Your task to perform on an android device: Show the shopping cart on newegg.com. Search for "apple airpods" on newegg.com, select the first entry, and add it to the cart. Image 0: 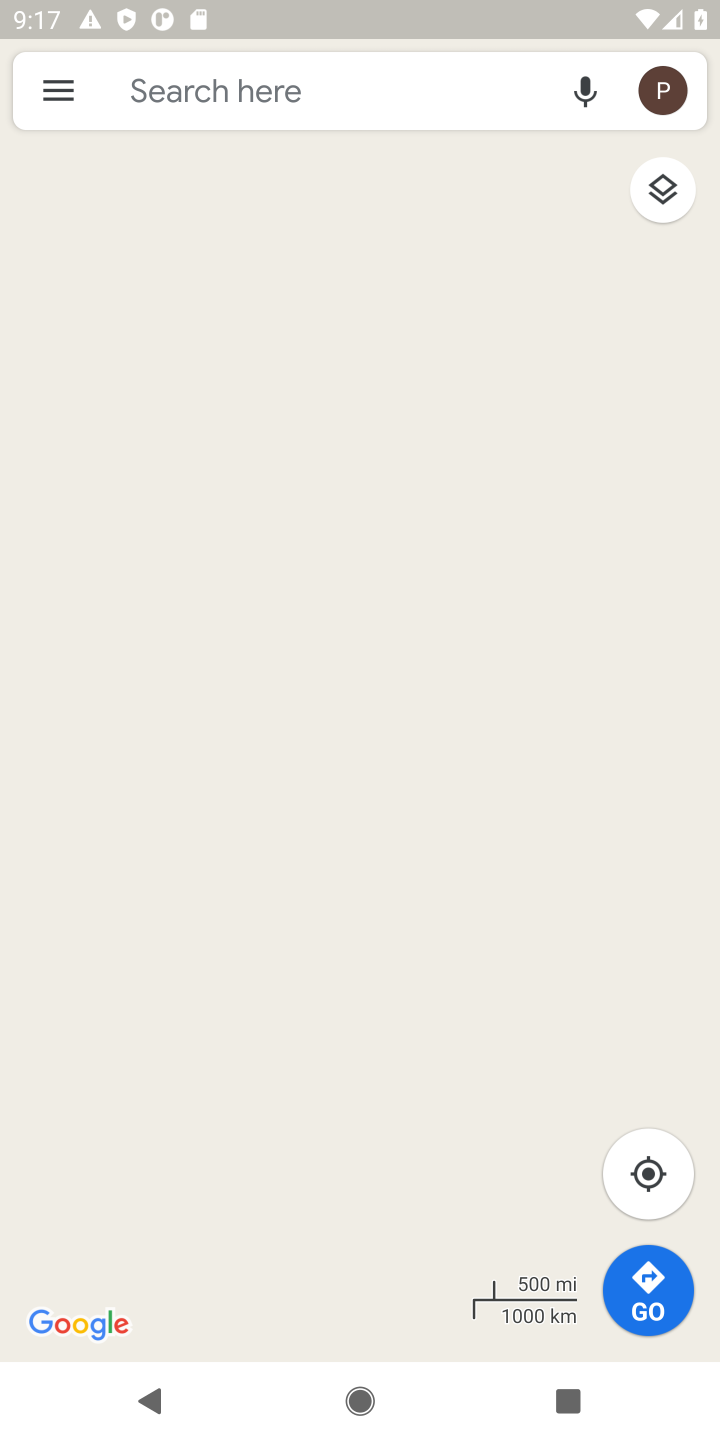
Step 0: press home button
Your task to perform on an android device: Show the shopping cart on newegg.com. Search for "apple airpods" on newegg.com, select the first entry, and add it to the cart. Image 1: 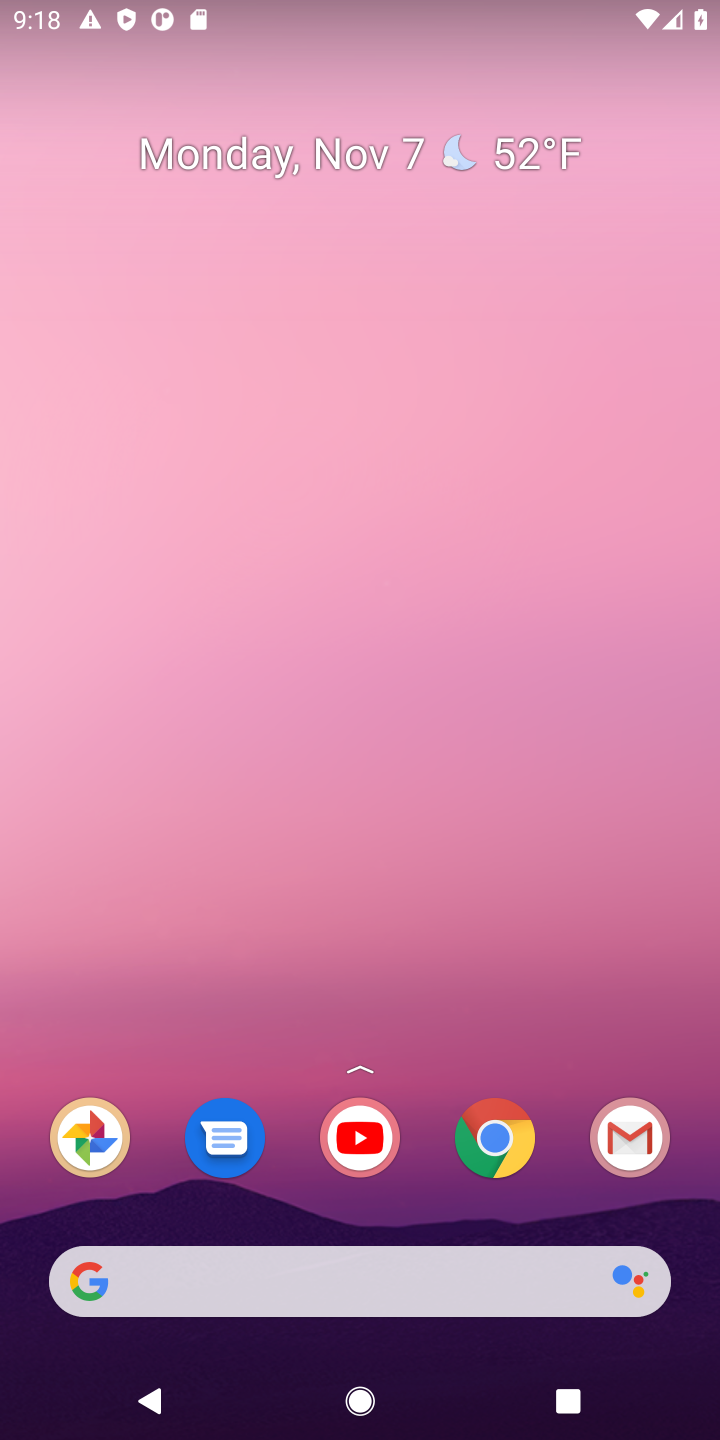
Step 1: drag from (412, 1222) to (457, 126)
Your task to perform on an android device: Show the shopping cart on newegg.com. Search for "apple airpods" on newegg.com, select the first entry, and add it to the cart. Image 2: 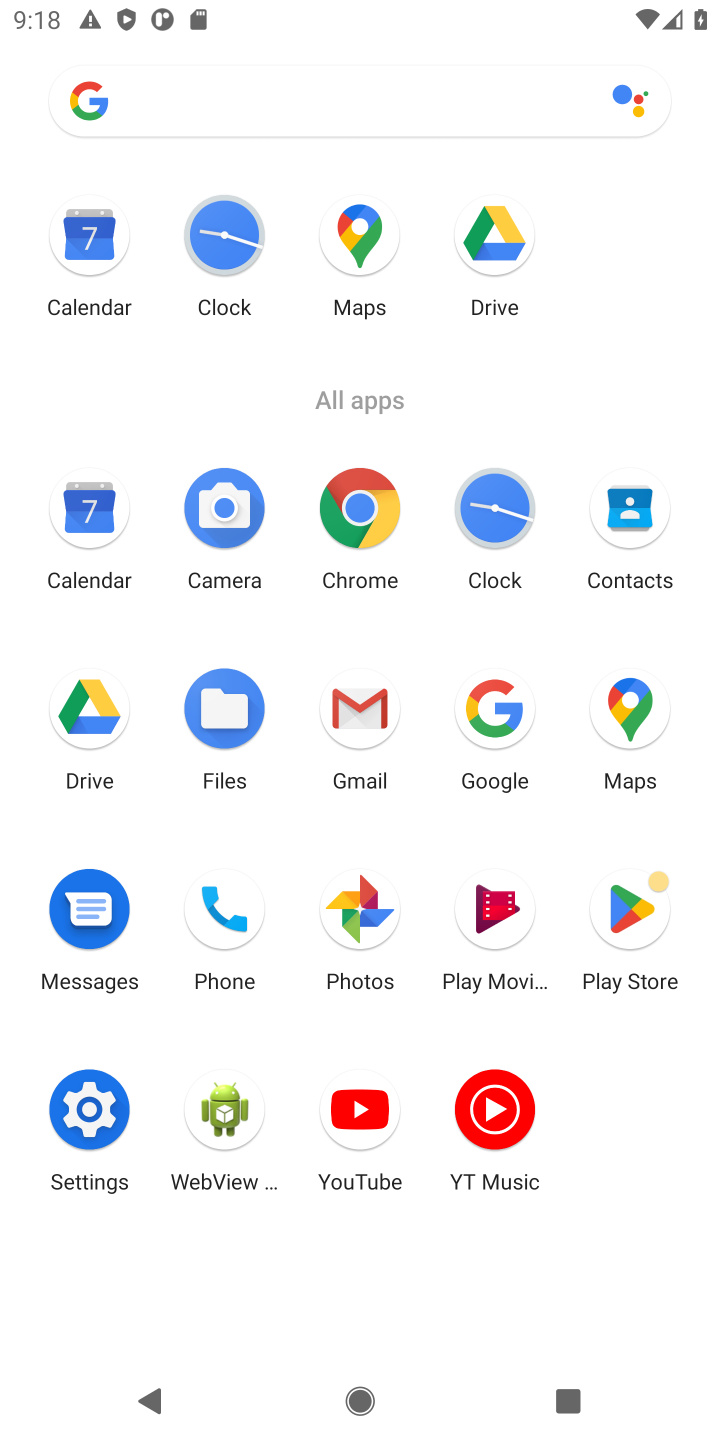
Step 2: click (353, 501)
Your task to perform on an android device: Show the shopping cart on newegg.com. Search for "apple airpods" on newegg.com, select the first entry, and add it to the cart. Image 3: 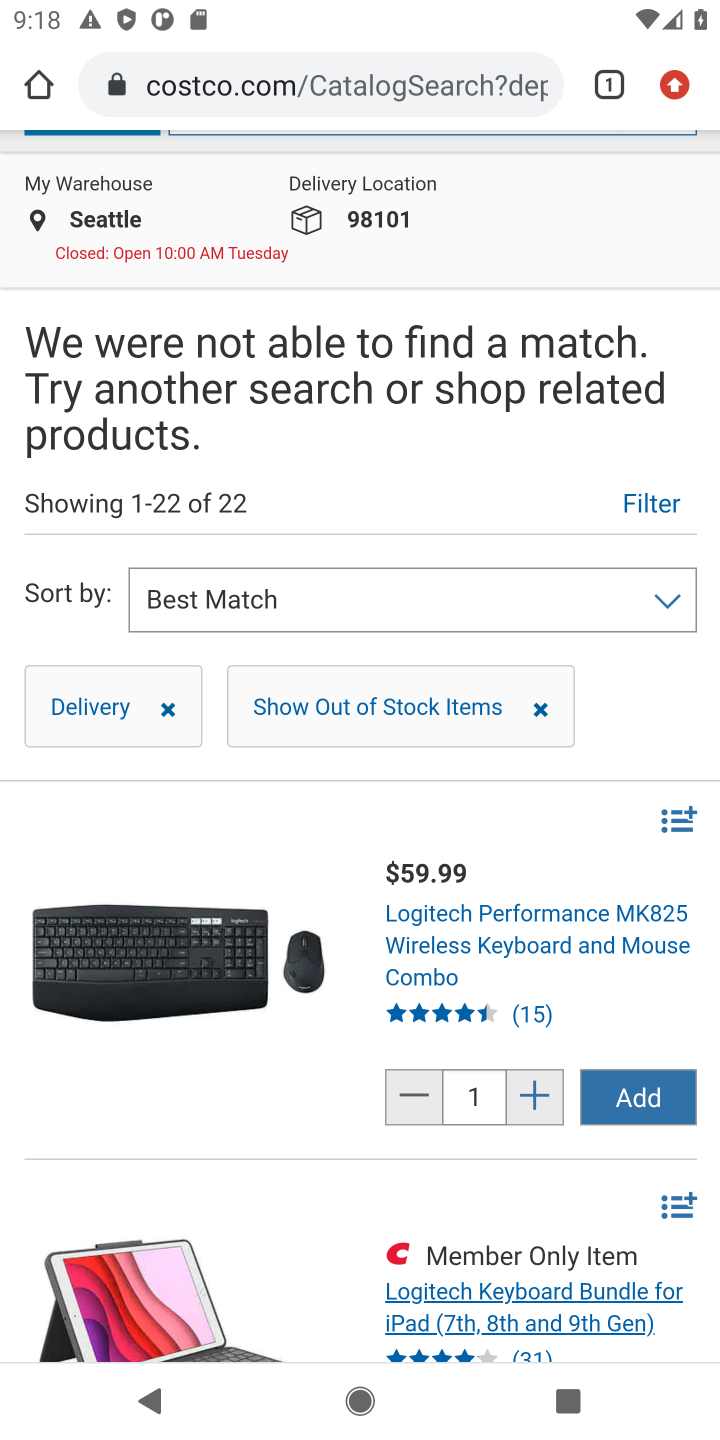
Step 3: click (331, 80)
Your task to perform on an android device: Show the shopping cart on newegg.com. Search for "apple airpods" on newegg.com, select the first entry, and add it to the cart. Image 4: 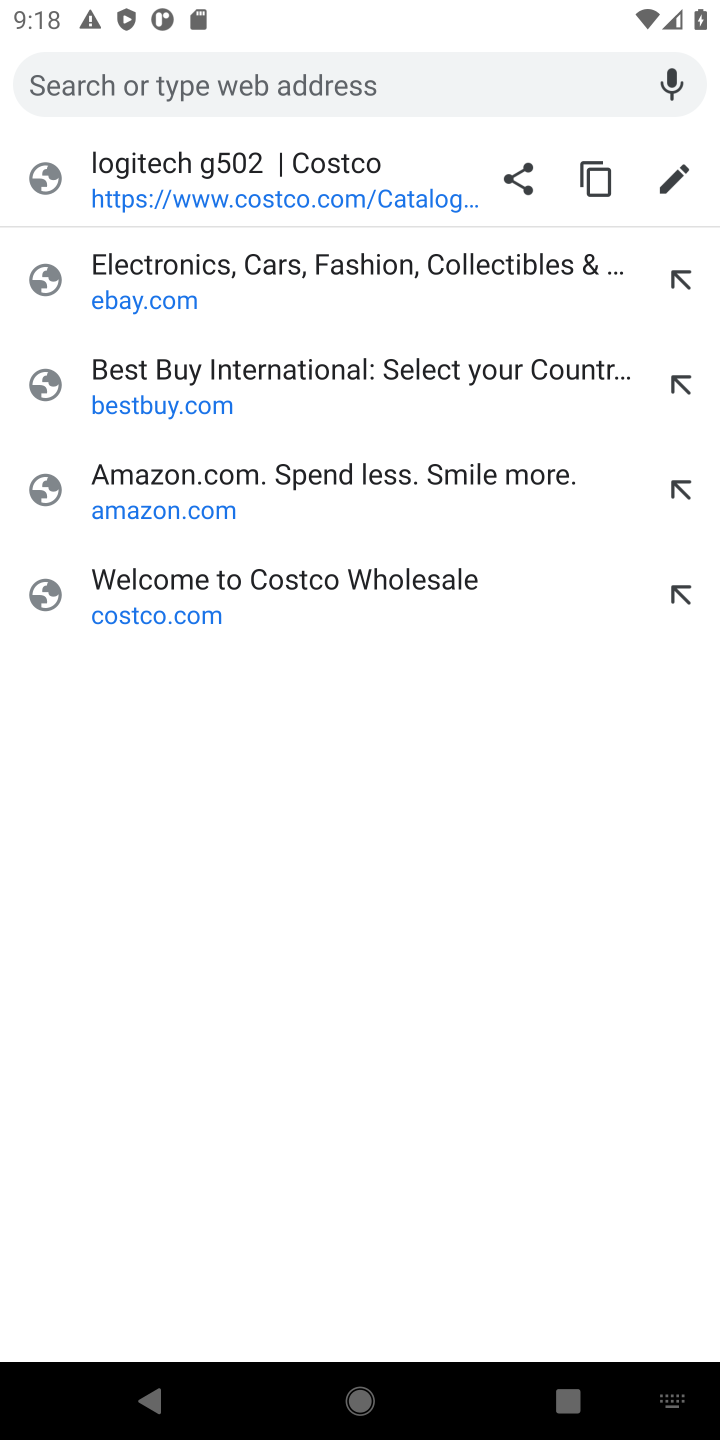
Step 4: type "newegg.com"
Your task to perform on an android device: Show the shopping cart on newegg.com. Search for "apple airpods" on newegg.com, select the first entry, and add it to the cart. Image 5: 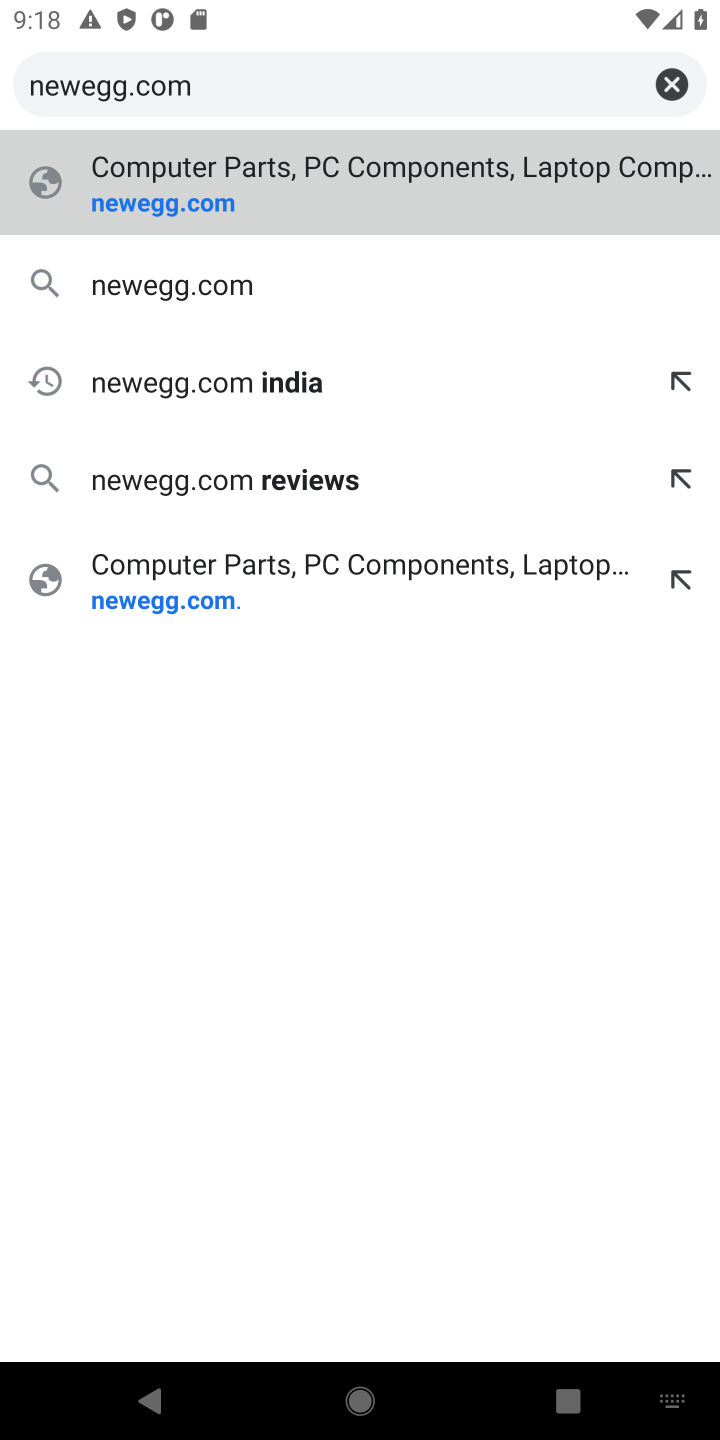
Step 5: press enter
Your task to perform on an android device: Show the shopping cart on newegg.com. Search for "apple airpods" on newegg.com, select the first entry, and add it to the cart. Image 6: 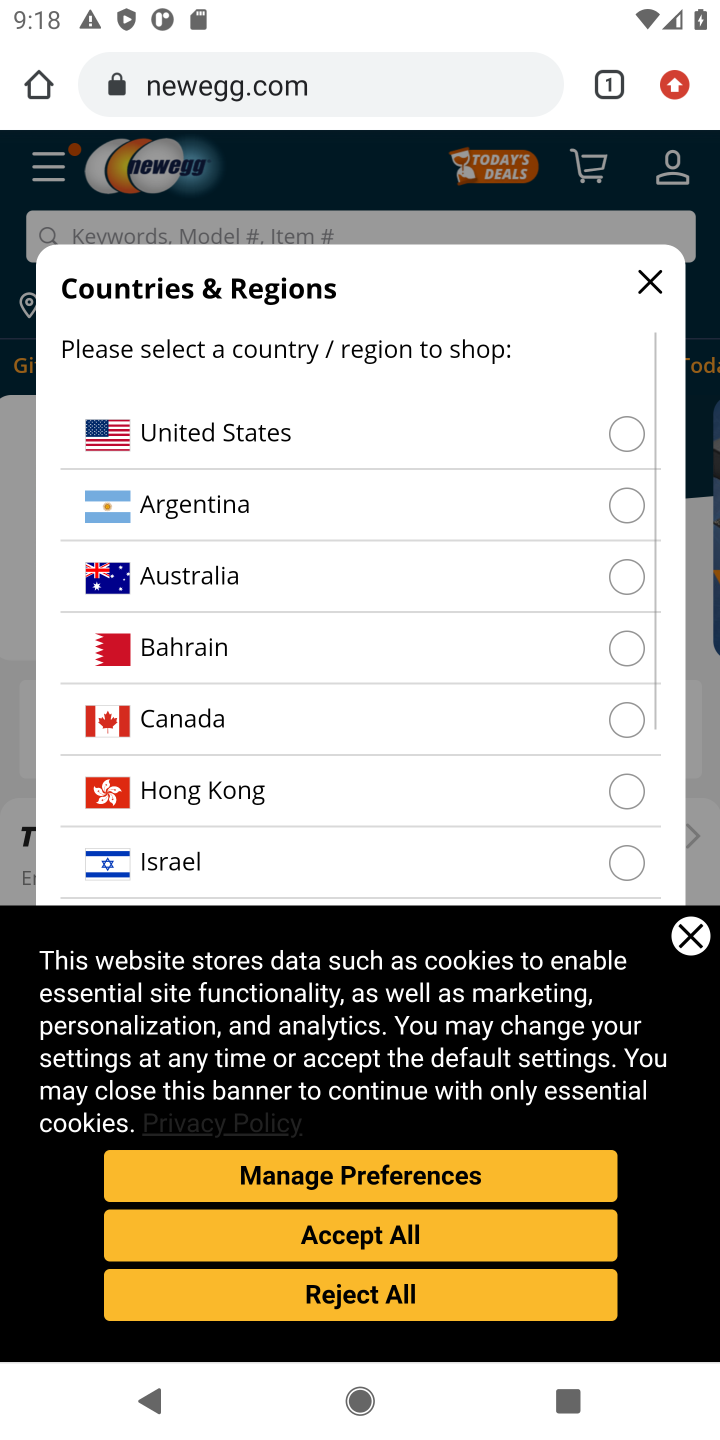
Step 6: click (659, 283)
Your task to perform on an android device: Show the shopping cart on newegg.com. Search for "apple airpods" on newegg.com, select the first entry, and add it to the cart. Image 7: 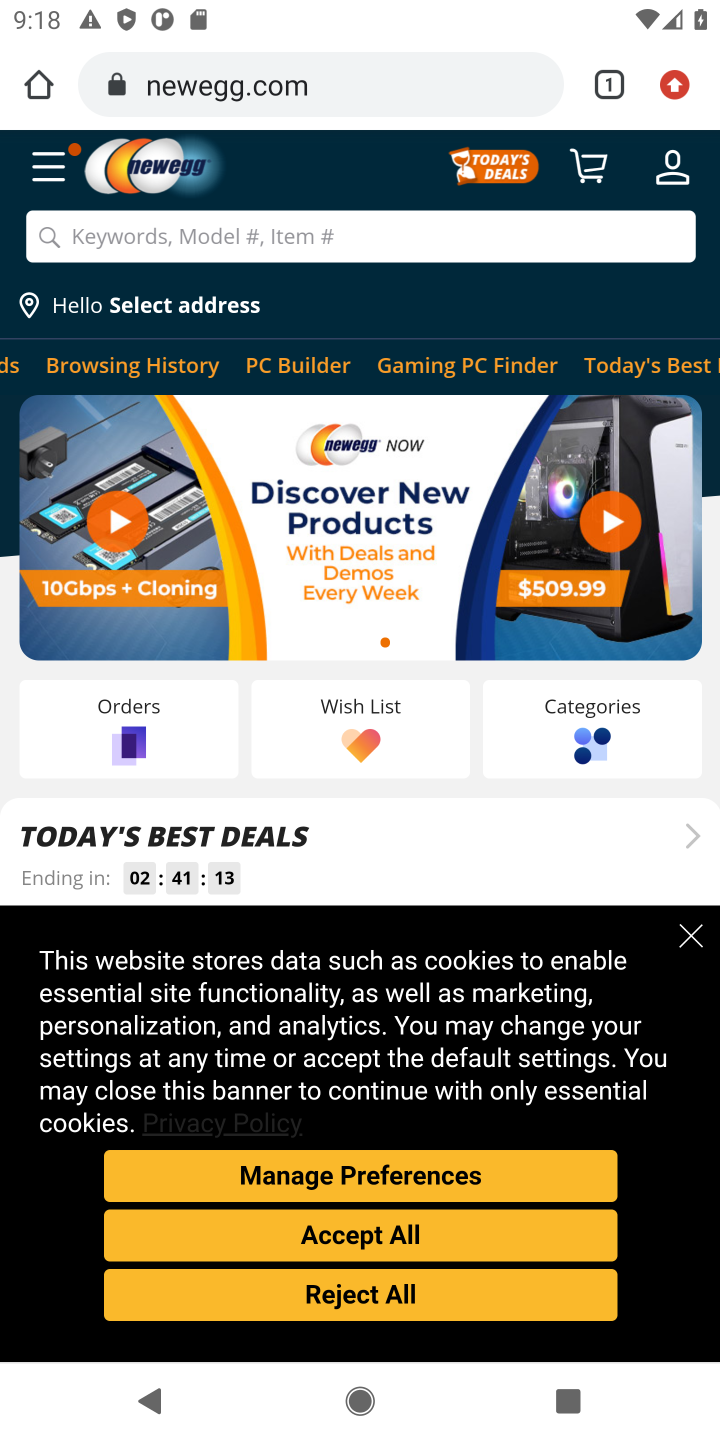
Step 7: click (599, 178)
Your task to perform on an android device: Show the shopping cart on newegg.com. Search for "apple airpods" on newegg.com, select the first entry, and add it to the cart. Image 8: 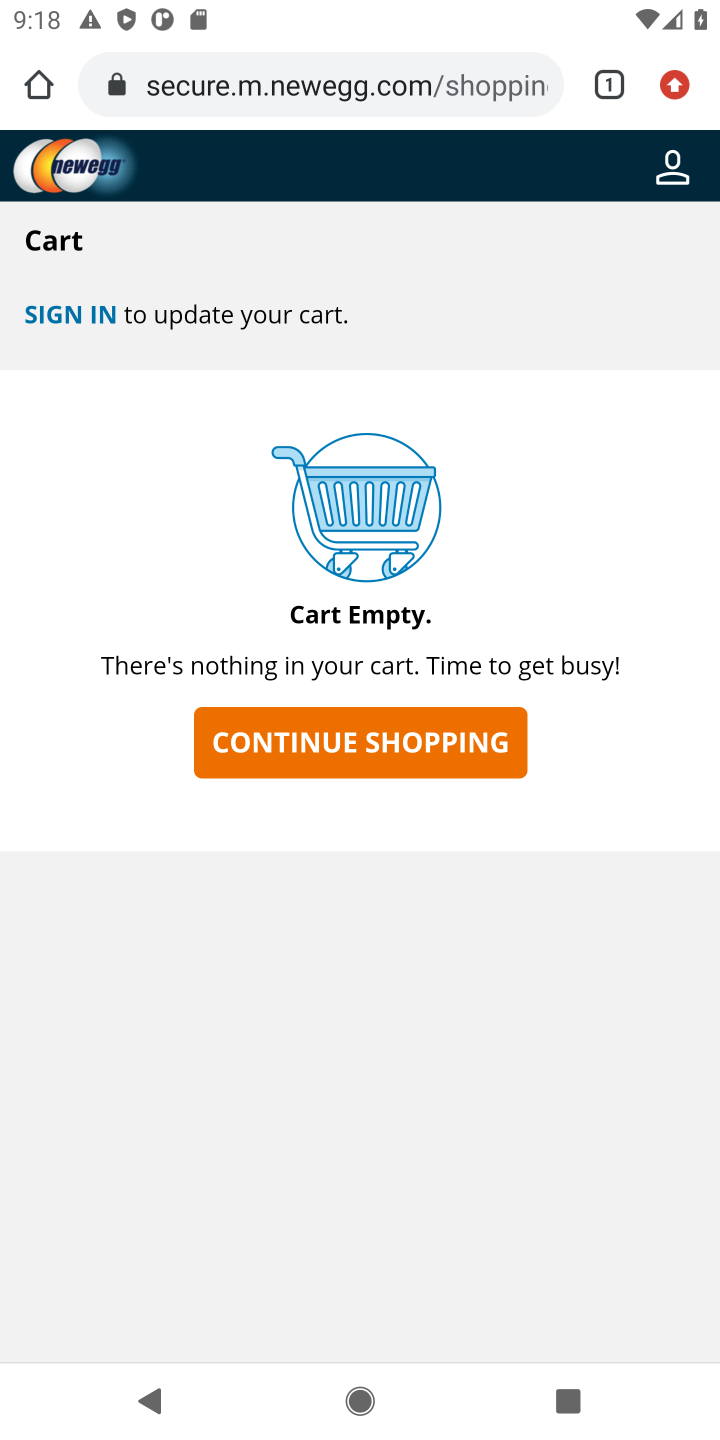
Step 8: click (371, 717)
Your task to perform on an android device: Show the shopping cart on newegg.com. Search for "apple airpods" on newegg.com, select the first entry, and add it to the cart. Image 9: 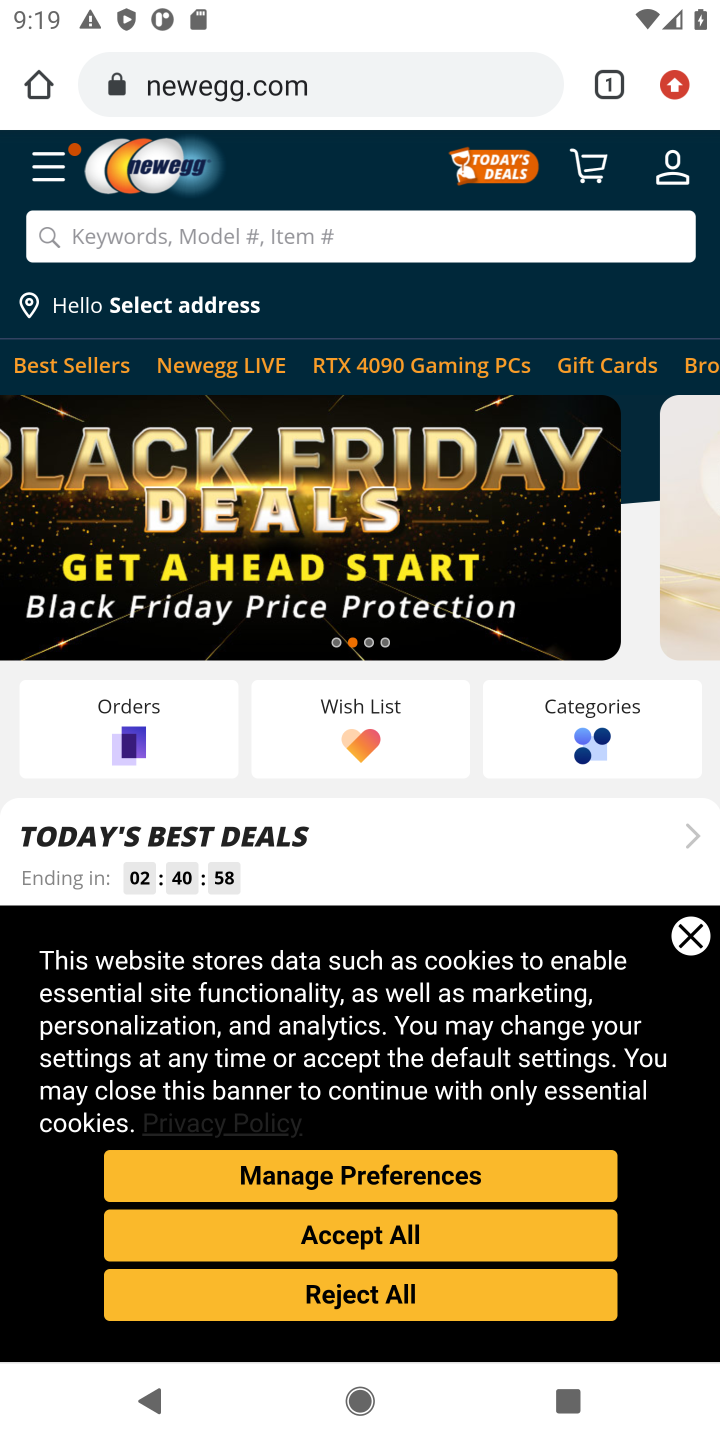
Step 9: click (380, 223)
Your task to perform on an android device: Show the shopping cart on newegg.com. Search for "apple airpods" on newegg.com, select the first entry, and add it to the cart. Image 10: 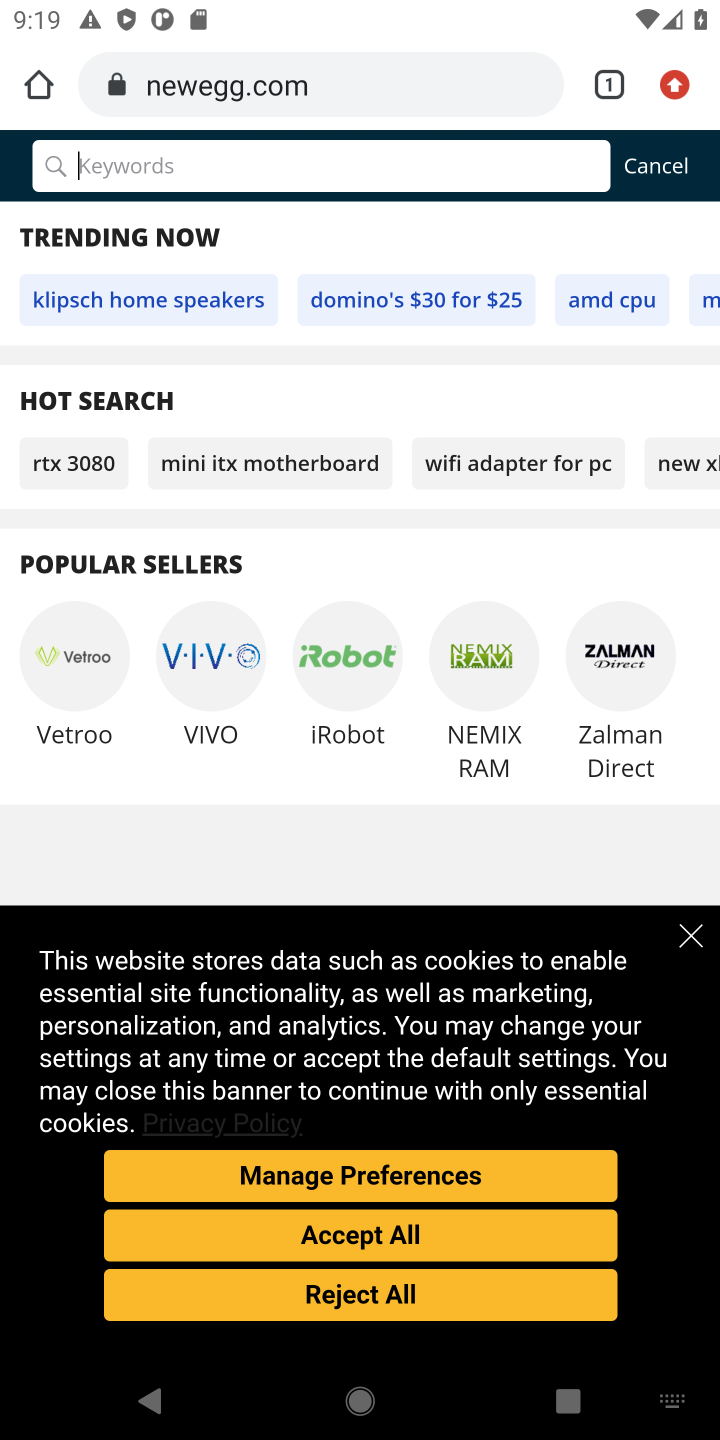
Step 10: type "apple airpods"
Your task to perform on an android device: Show the shopping cart on newegg.com. Search for "apple airpods" on newegg.com, select the first entry, and add it to the cart. Image 11: 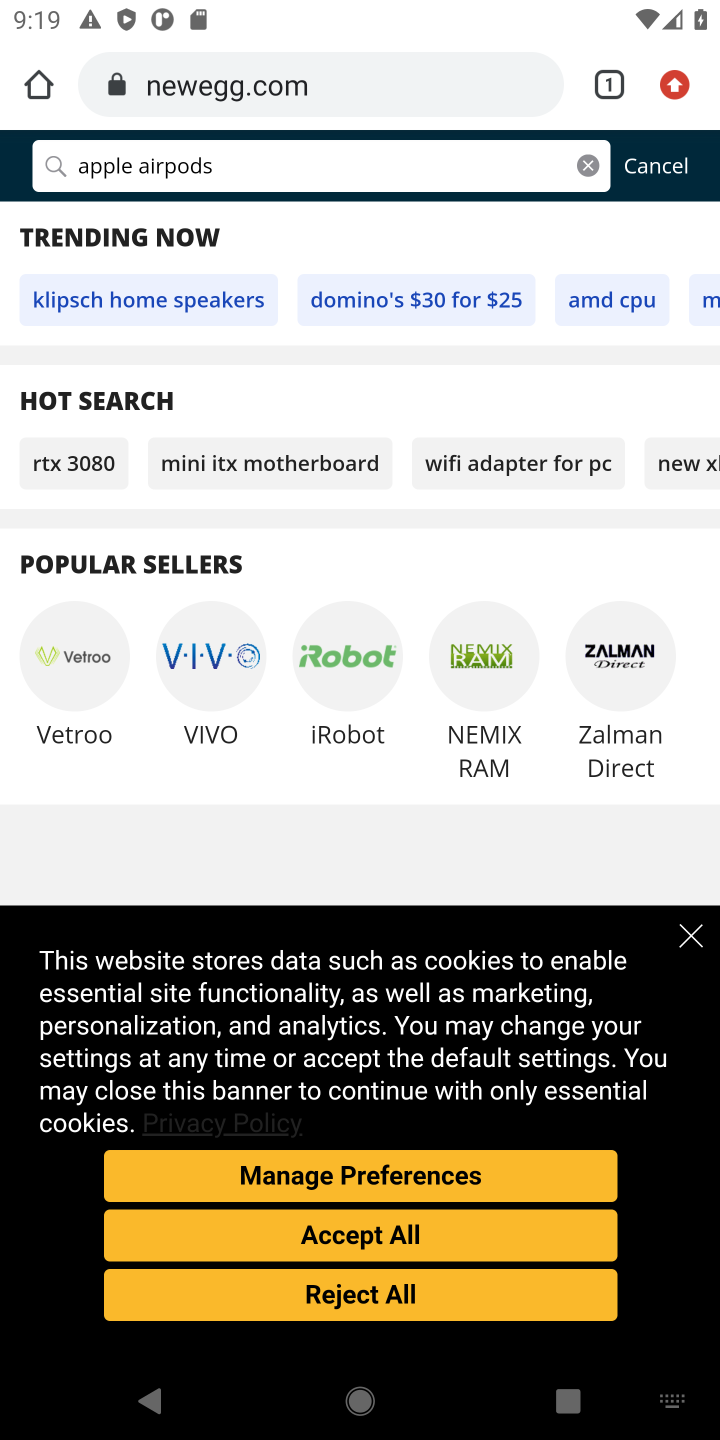
Step 11: press enter
Your task to perform on an android device: Show the shopping cart on newegg.com. Search for "apple airpods" on newegg.com, select the first entry, and add it to the cart. Image 12: 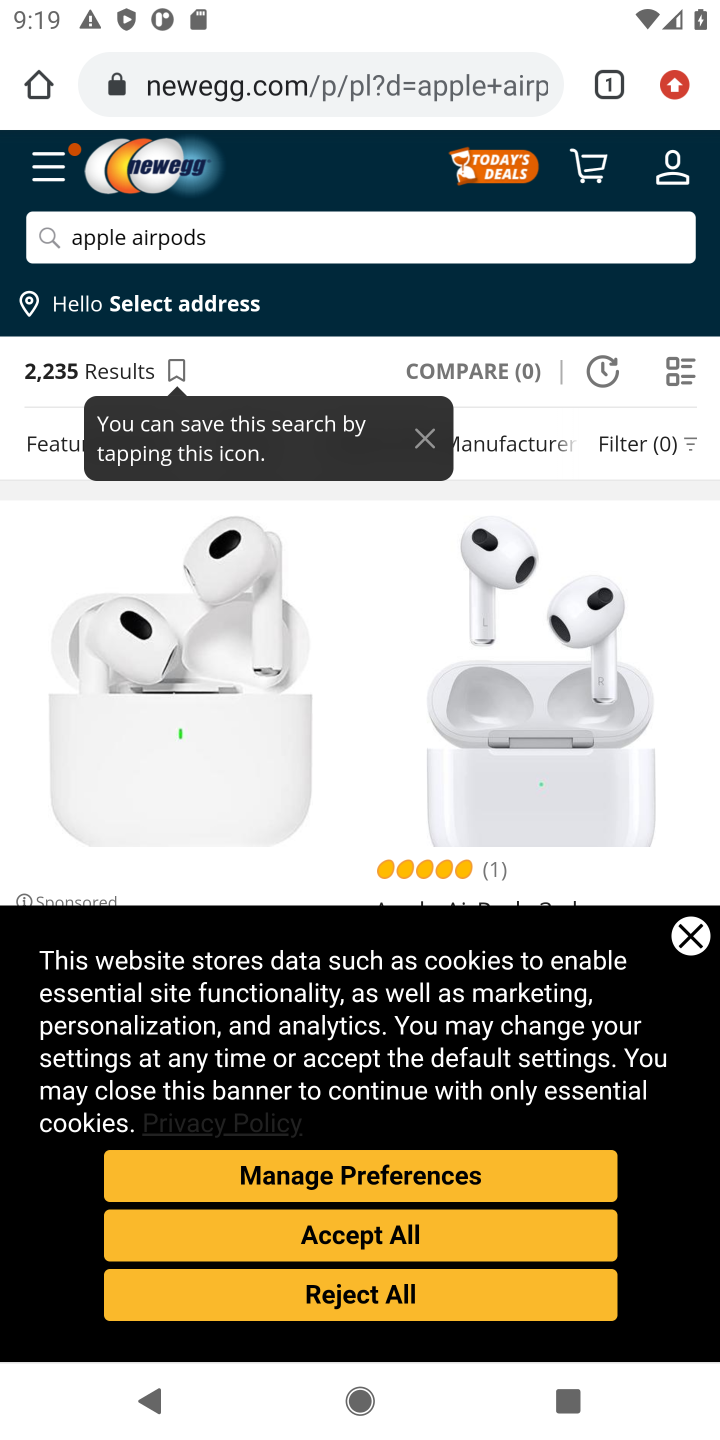
Step 12: click (396, 1228)
Your task to perform on an android device: Show the shopping cart on newegg.com. Search for "apple airpods" on newegg.com, select the first entry, and add it to the cart. Image 13: 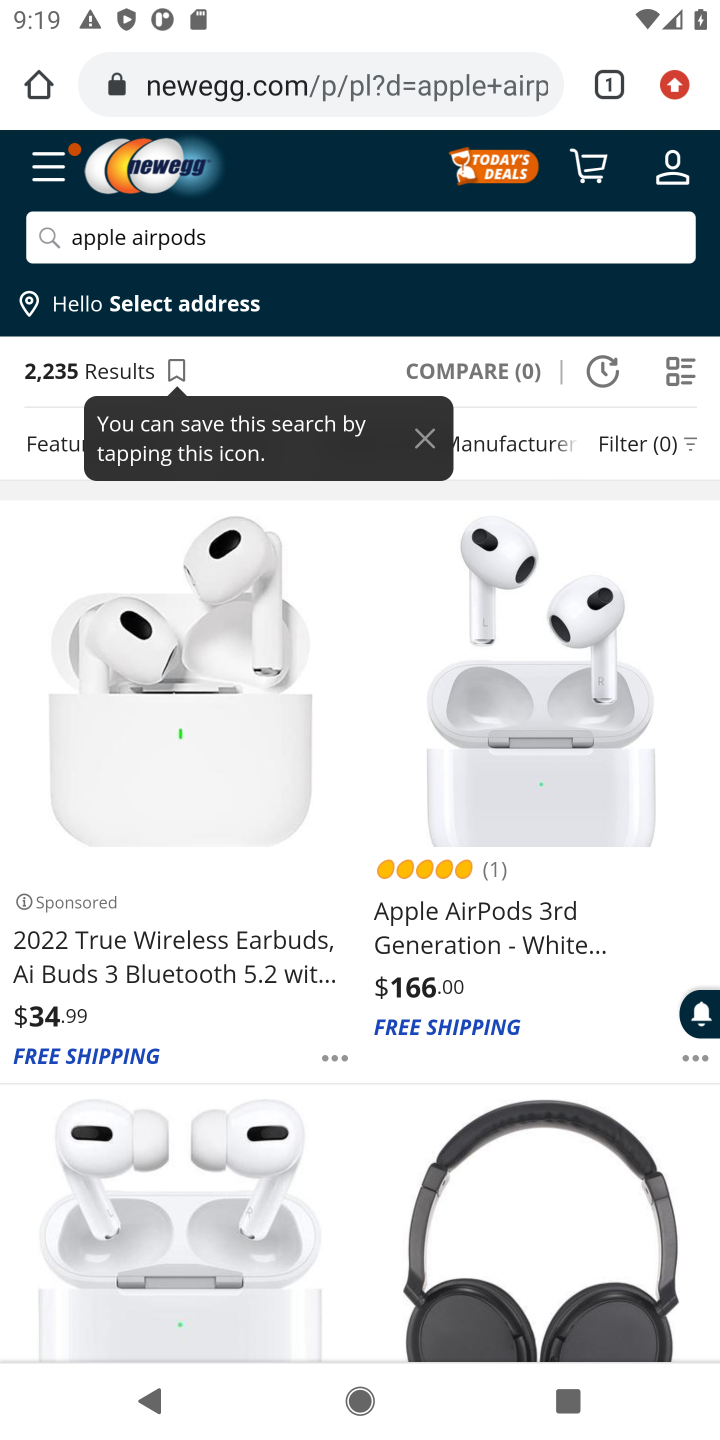
Step 13: click (538, 931)
Your task to perform on an android device: Show the shopping cart on newegg.com. Search for "apple airpods" on newegg.com, select the first entry, and add it to the cart. Image 14: 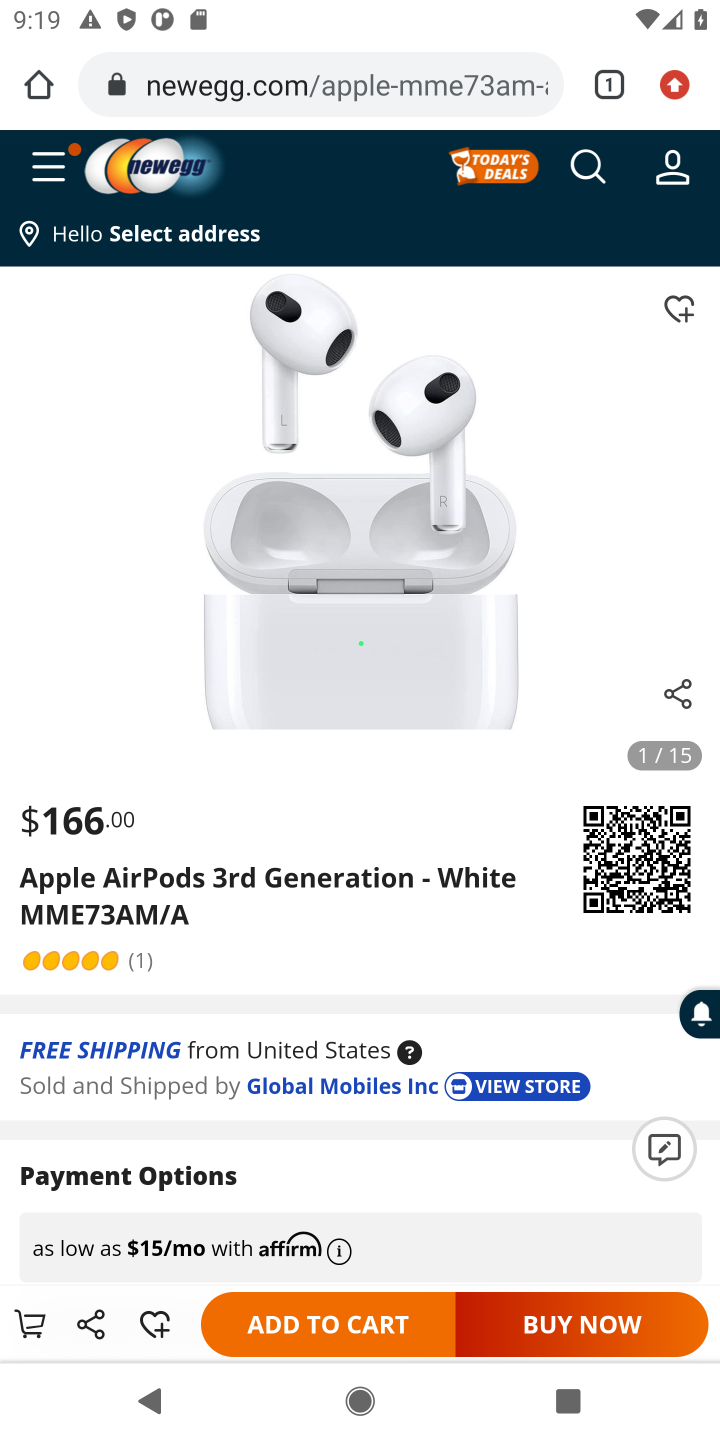
Step 14: click (274, 1344)
Your task to perform on an android device: Show the shopping cart on newegg.com. Search for "apple airpods" on newegg.com, select the first entry, and add it to the cart. Image 15: 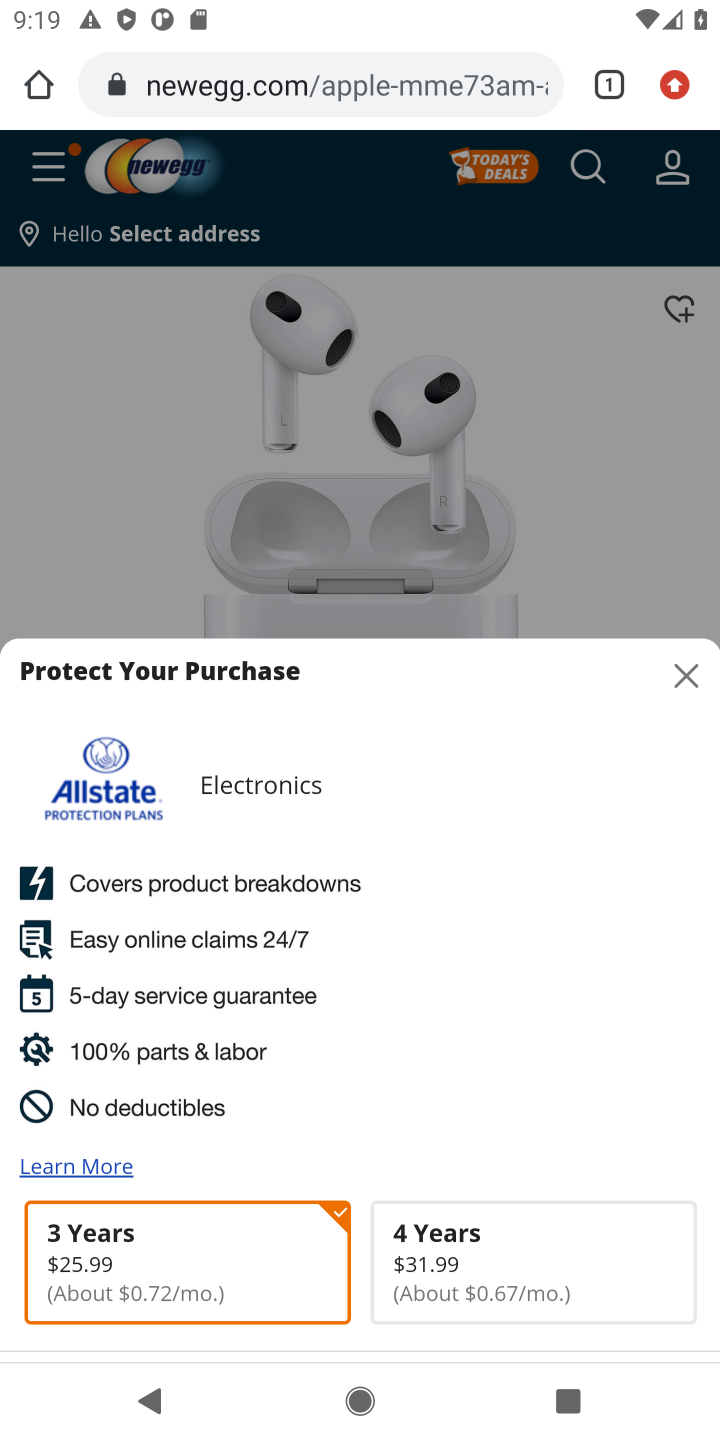
Step 15: task complete